Your task to perform on an android device: turn off notifications settings in the gmail app Image 0: 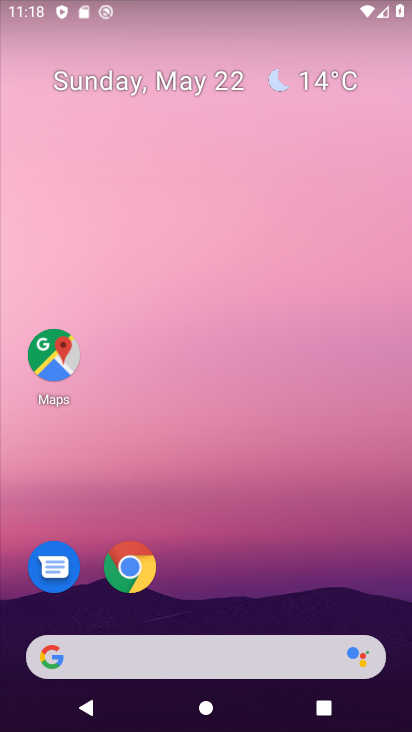
Step 0: drag from (150, 538) to (179, 57)
Your task to perform on an android device: turn off notifications settings in the gmail app Image 1: 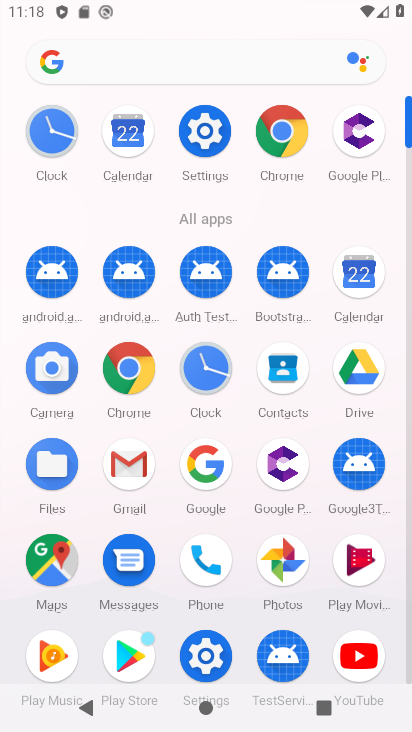
Step 1: click (130, 473)
Your task to perform on an android device: turn off notifications settings in the gmail app Image 2: 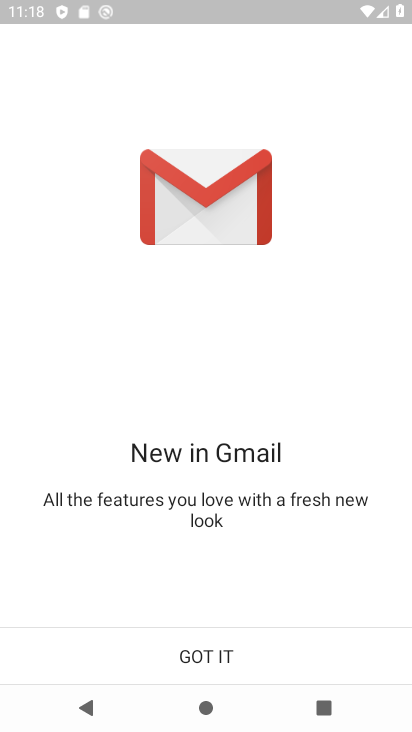
Step 2: click (231, 662)
Your task to perform on an android device: turn off notifications settings in the gmail app Image 3: 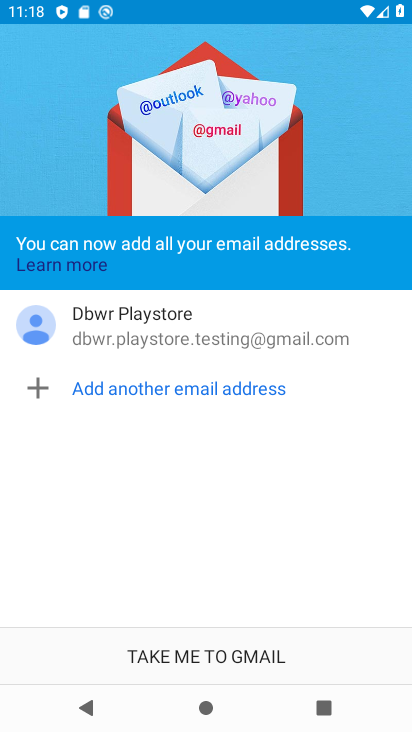
Step 3: click (182, 625)
Your task to perform on an android device: turn off notifications settings in the gmail app Image 4: 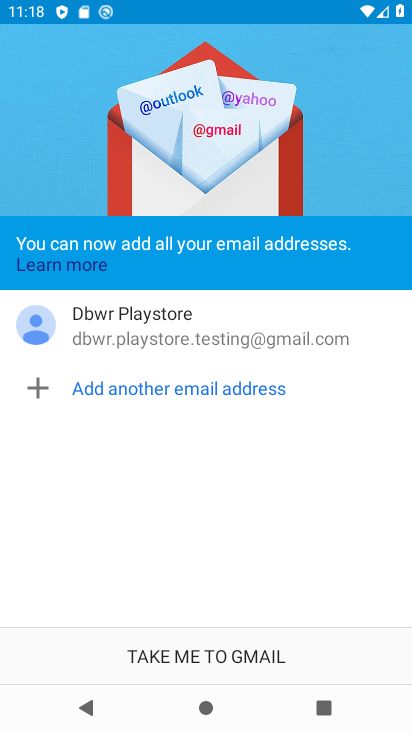
Step 4: click (181, 645)
Your task to perform on an android device: turn off notifications settings in the gmail app Image 5: 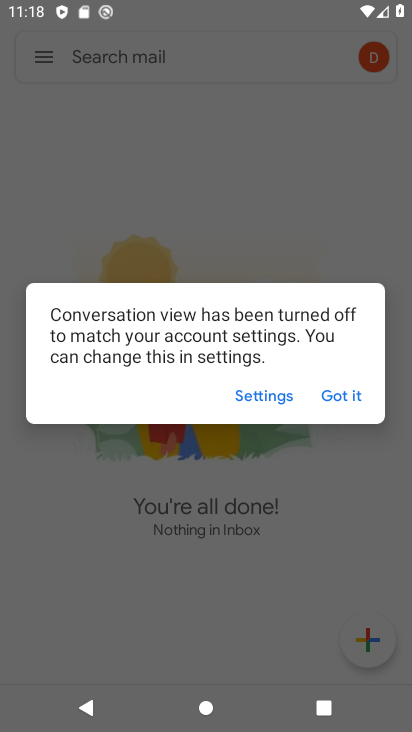
Step 5: click (342, 377)
Your task to perform on an android device: turn off notifications settings in the gmail app Image 6: 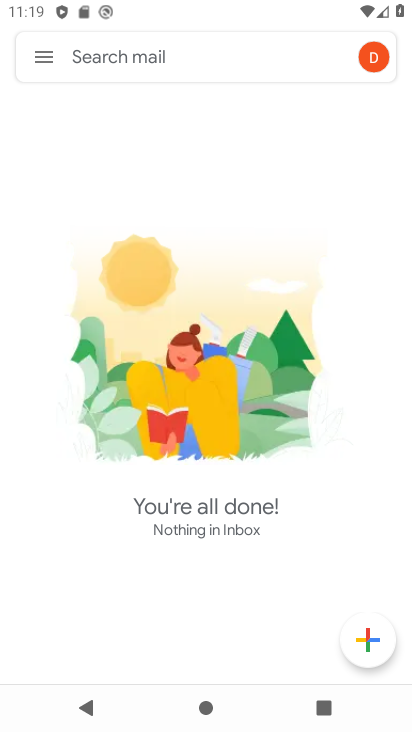
Step 6: click (51, 52)
Your task to perform on an android device: turn off notifications settings in the gmail app Image 7: 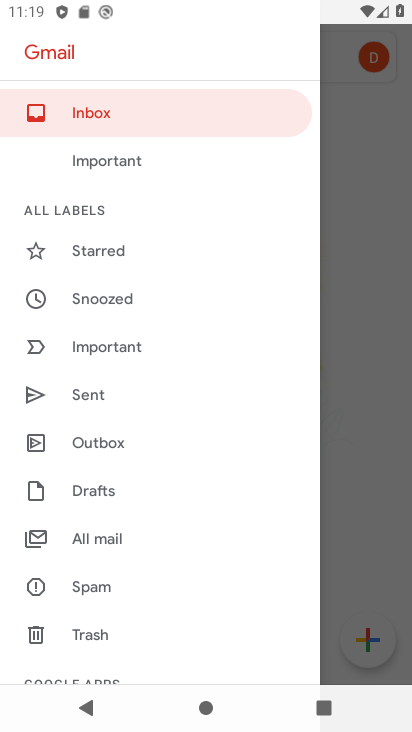
Step 7: drag from (135, 581) to (181, 217)
Your task to perform on an android device: turn off notifications settings in the gmail app Image 8: 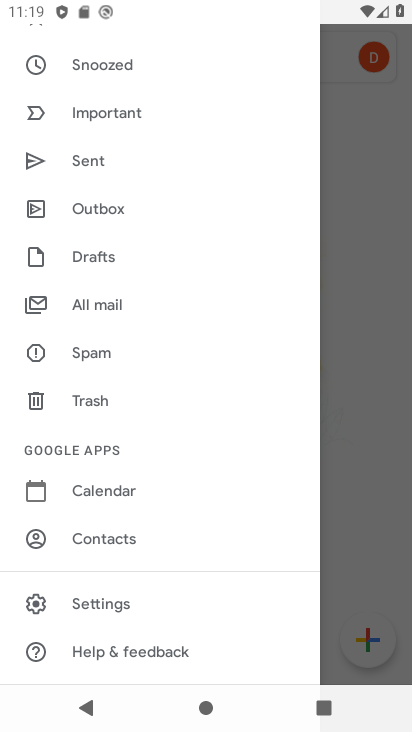
Step 8: click (108, 608)
Your task to perform on an android device: turn off notifications settings in the gmail app Image 9: 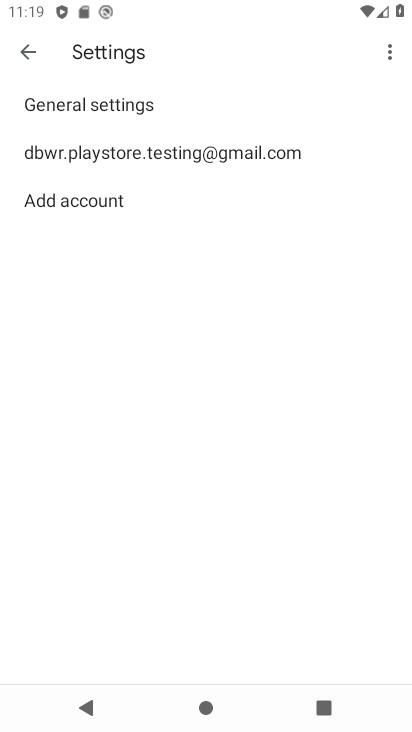
Step 9: click (162, 145)
Your task to perform on an android device: turn off notifications settings in the gmail app Image 10: 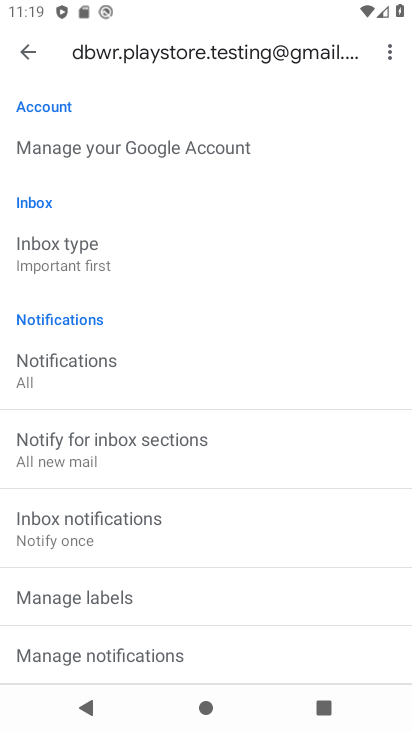
Step 10: click (128, 650)
Your task to perform on an android device: turn off notifications settings in the gmail app Image 11: 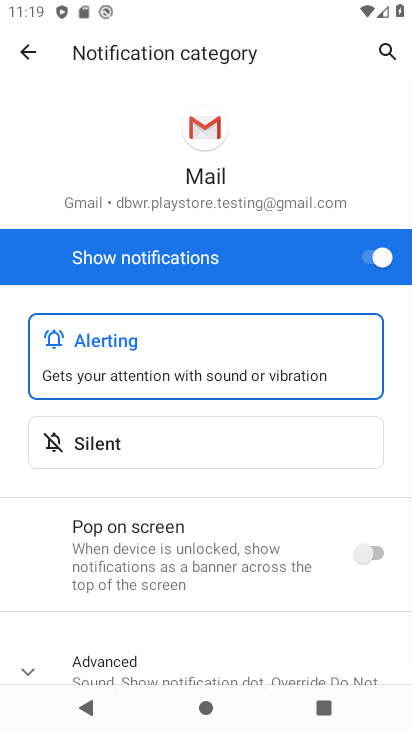
Step 11: click (374, 251)
Your task to perform on an android device: turn off notifications settings in the gmail app Image 12: 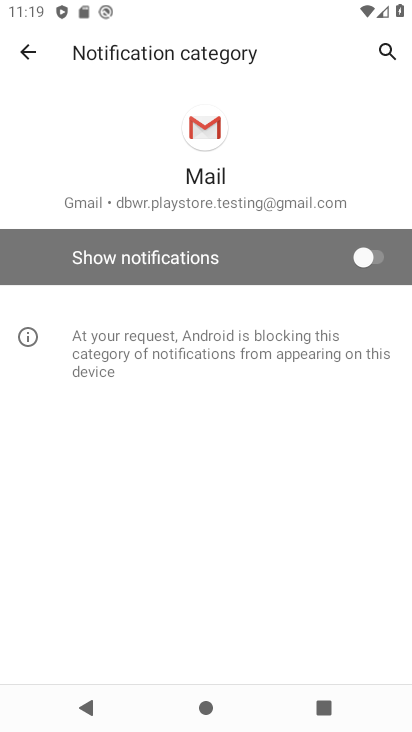
Step 12: task complete